Your task to perform on an android device: clear history in the chrome app Image 0: 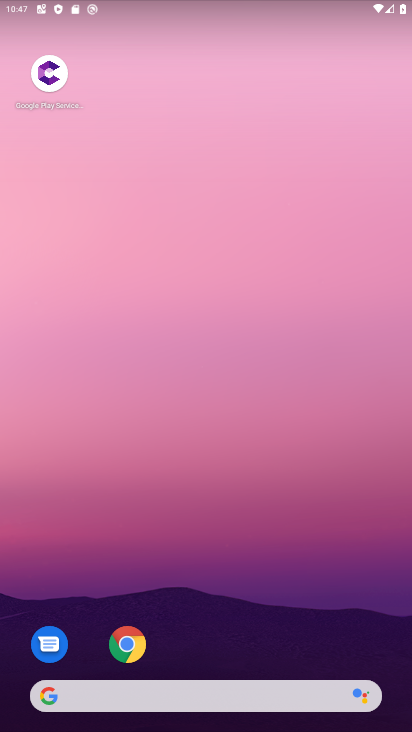
Step 0: click (126, 659)
Your task to perform on an android device: clear history in the chrome app Image 1: 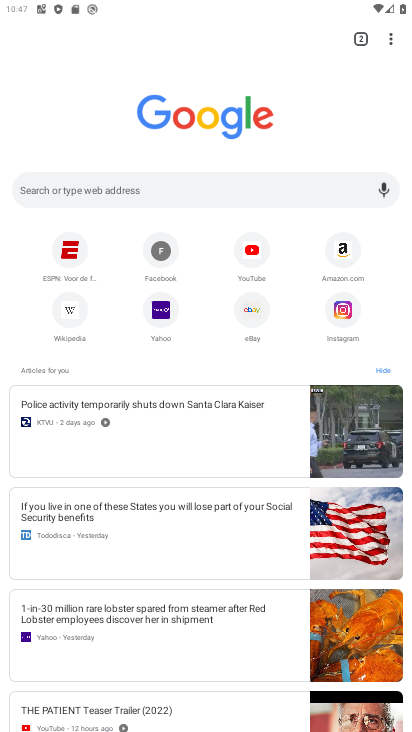
Step 1: drag from (388, 33) to (259, 221)
Your task to perform on an android device: clear history in the chrome app Image 2: 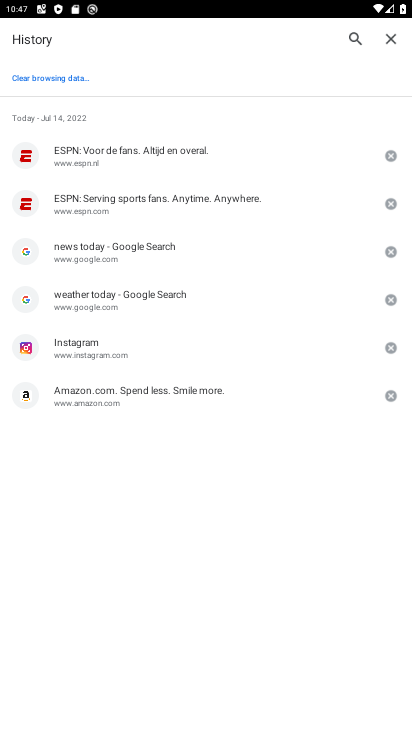
Step 2: click (38, 80)
Your task to perform on an android device: clear history in the chrome app Image 3: 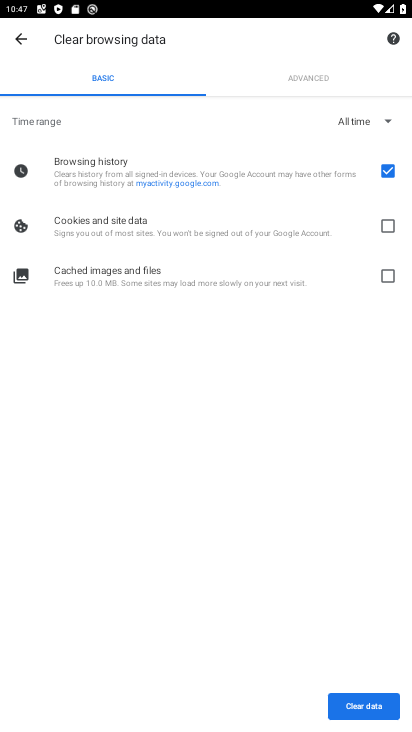
Step 3: click (378, 698)
Your task to perform on an android device: clear history in the chrome app Image 4: 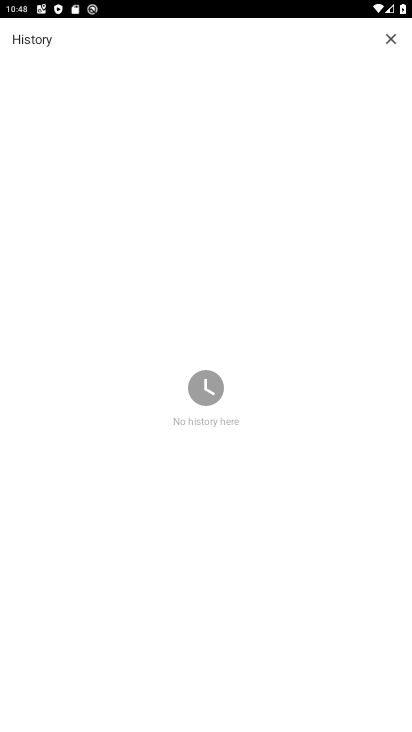
Step 4: task complete